Your task to perform on an android device: empty trash in google photos Image 0: 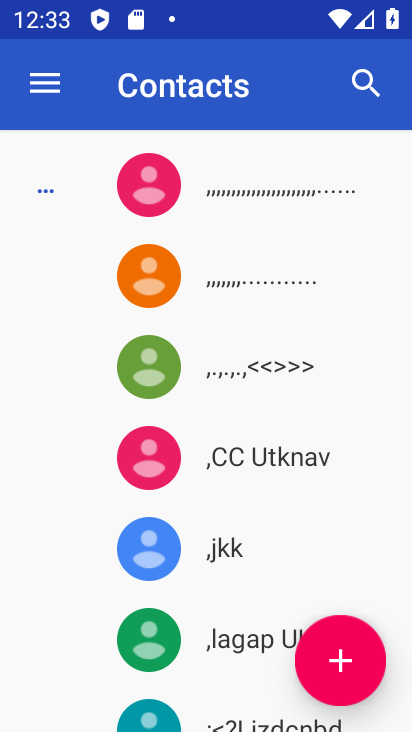
Step 0: press home button
Your task to perform on an android device: empty trash in google photos Image 1: 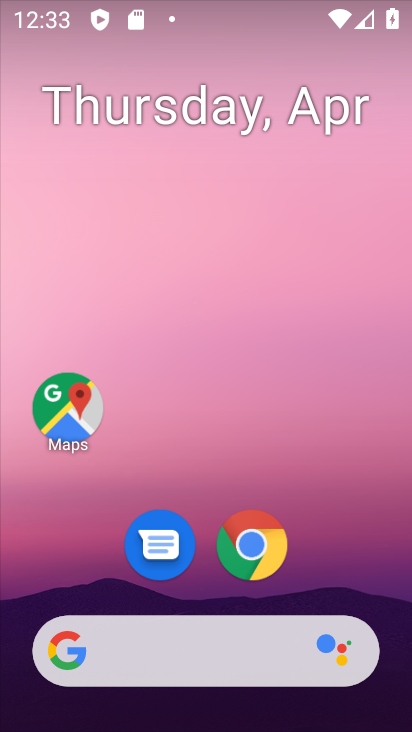
Step 1: drag from (337, 542) to (263, 50)
Your task to perform on an android device: empty trash in google photos Image 2: 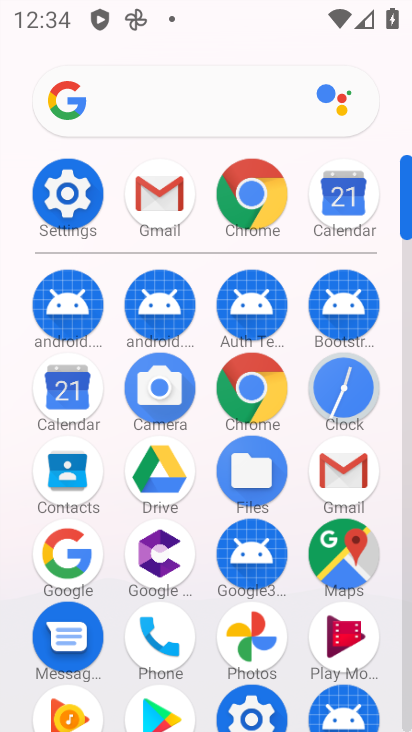
Step 2: click (255, 624)
Your task to perform on an android device: empty trash in google photos Image 3: 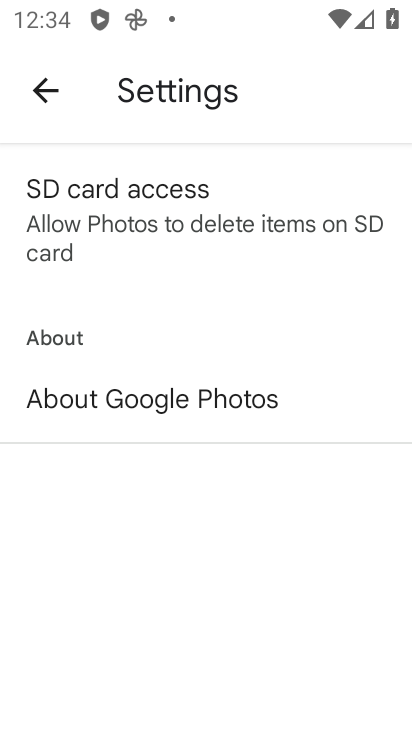
Step 3: click (47, 97)
Your task to perform on an android device: empty trash in google photos Image 4: 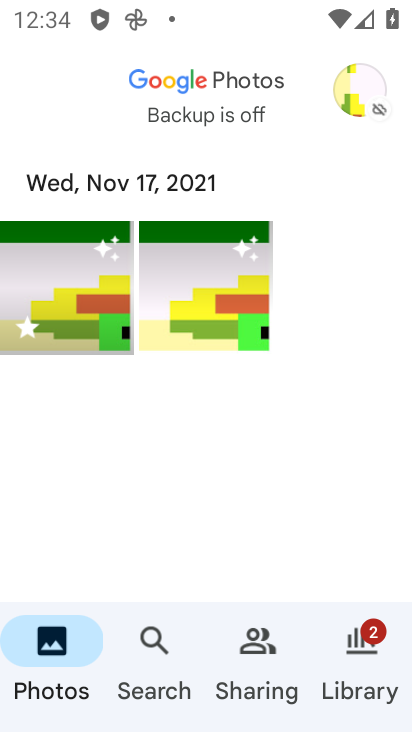
Step 4: click (356, 92)
Your task to perform on an android device: empty trash in google photos Image 5: 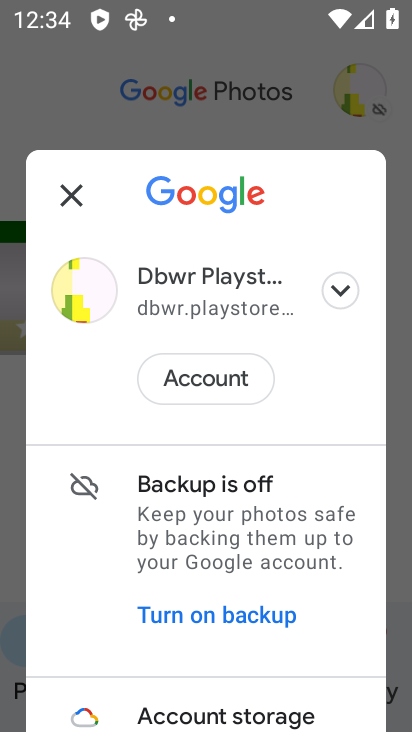
Step 5: drag from (254, 513) to (265, 85)
Your task to perform on an android device: empty trash in google photos Image 6: 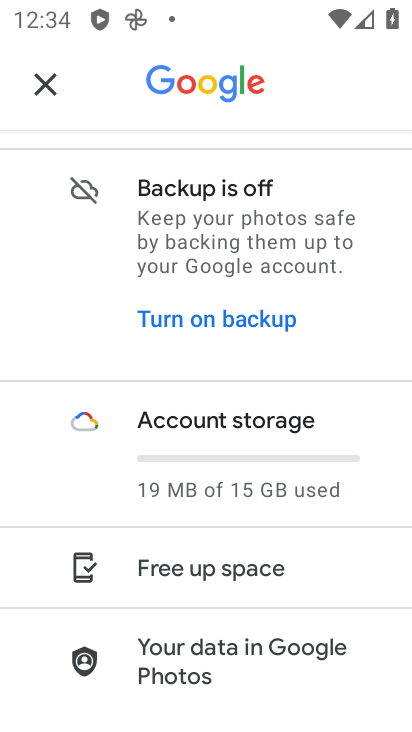
Step 6: click (233, 553)
Your task to perform on an android device: empty trash in google photos Image 7: 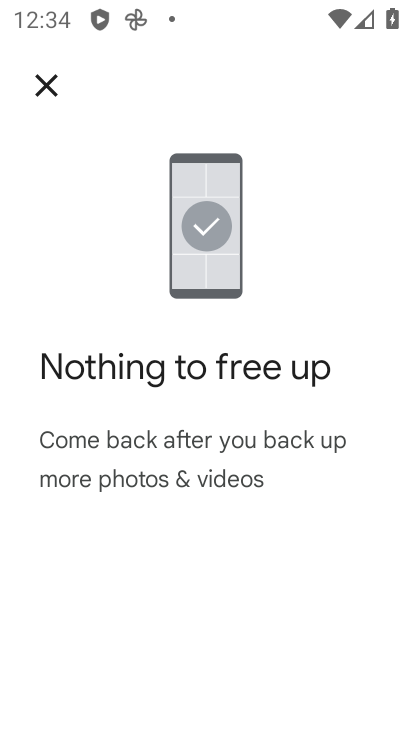
Step 7: task complete